Your task to perform on an android device: Open sound settings Image 0: 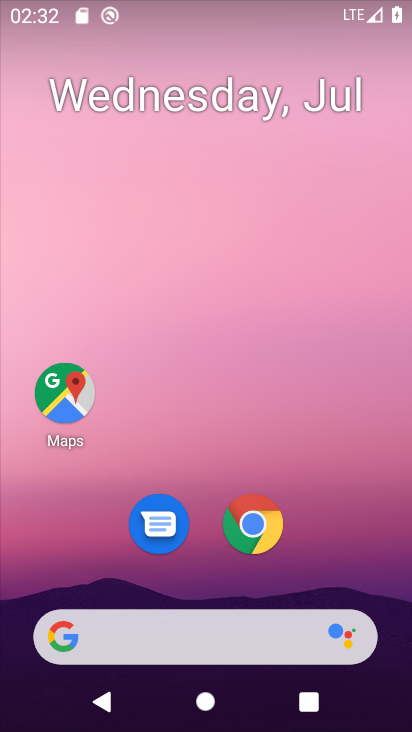
Step 0: drag from (333, 536) to (351, 75)
Your task to perform on an android device: Open sound settings Image 1: 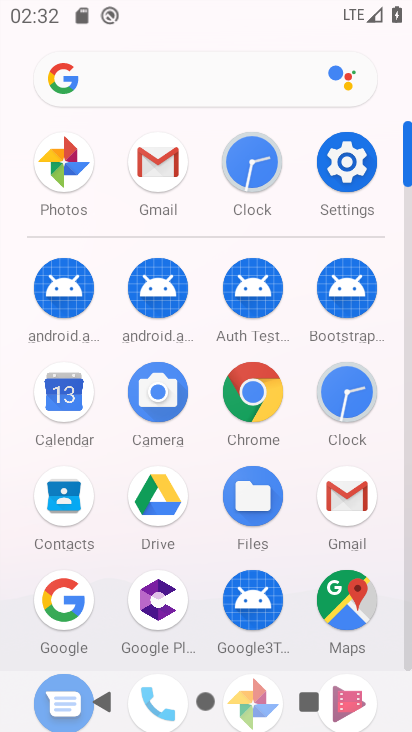
Step 1: click (336, 164)
Your task to perform on an android device: Open sound settings Image 2: 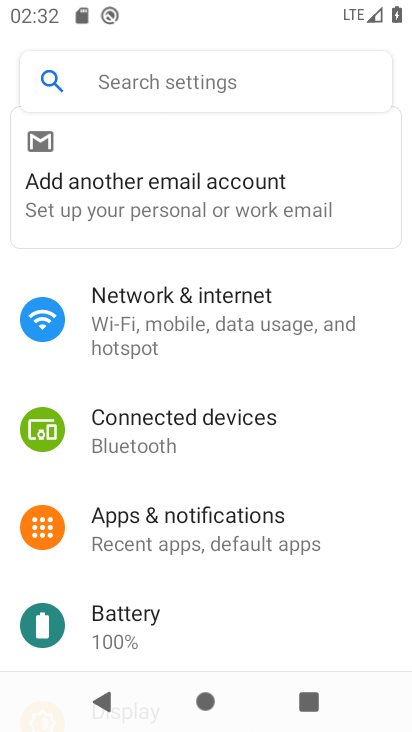
Step 2: drag from (257, 585) to (279, 135)
Your task to perform on an android device: Open sound settings Image 3: 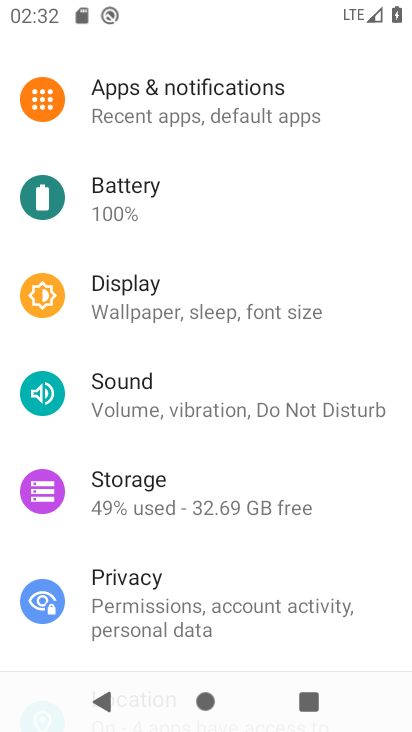
Step 3: click (197, 401)
Your task to perform on an android device: Open sound settings Image 4: 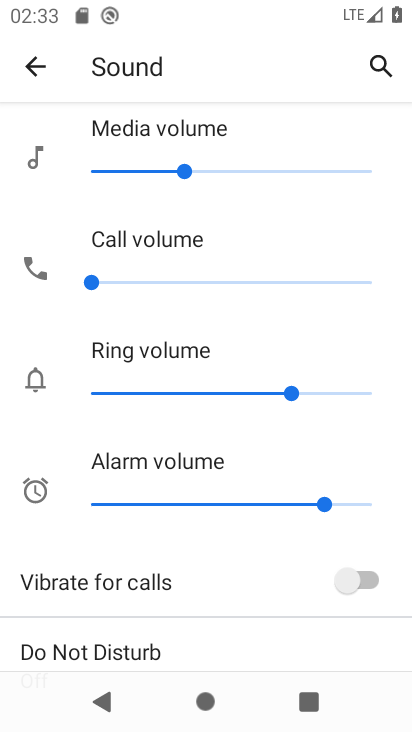
Step 4: task complete